Your task to perform on an android device: turn on bluetooth scan Image 0: 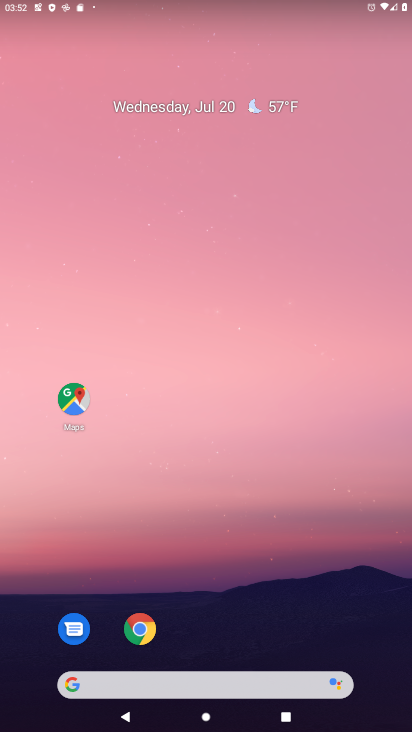
Step 0: drag from (383, 644) to (339, 30)
Your task to perform on an android device: turn on bluetooth scan Image 1: 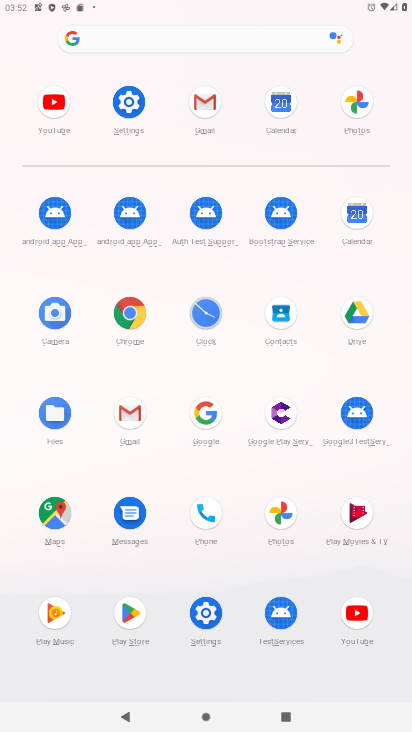
Step 1: click (206, 613)
Your task to perform on an android device: turn on bluetooth scan Image 2: 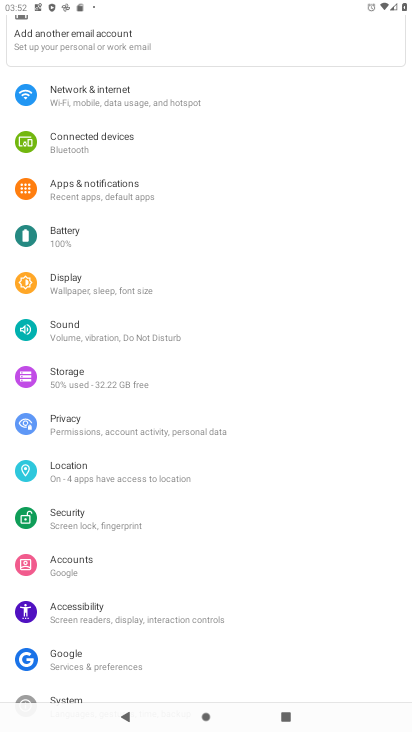
Step 2: click (80, 465)
Your task to perform on an android device: turn on bluetooth scan Image 3: 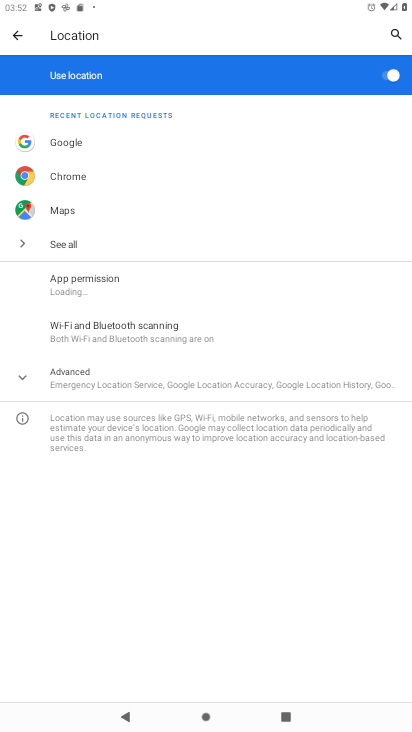
Step 3: click (89, 329)
Your task to perform on an android device: turn on bluetooth scan Image 4: 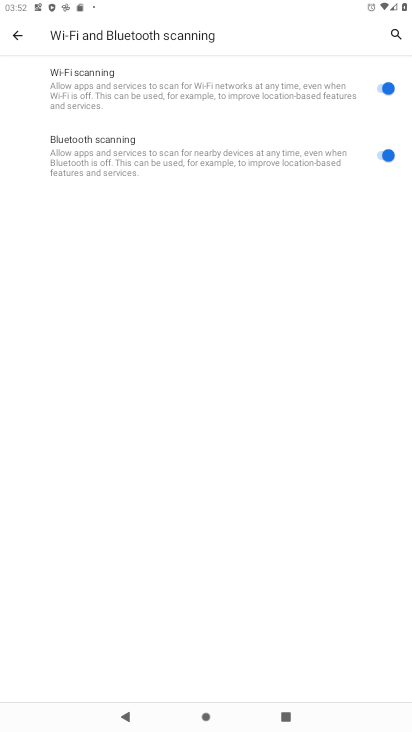
Step 4: task complete